Your task to perform on an android device: toggle airplane mode Image 0: 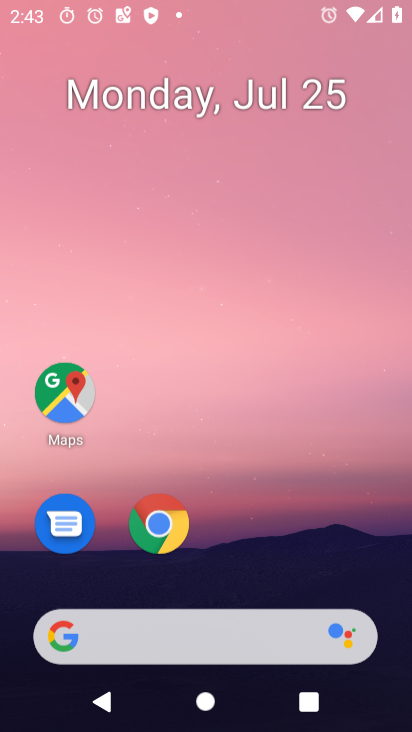
Step 0: press home button
Your task to perform on an android device: toggle airplane mode Image 1: 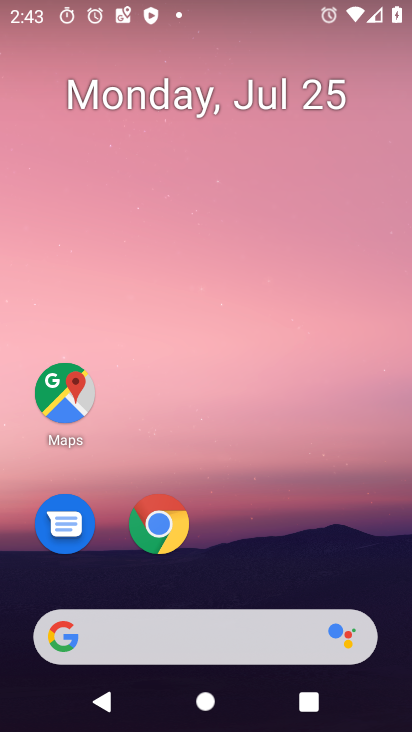
Step 1: drag from (206, 2) to (234, 511)
Your task to perform on an android device: toggle airplane mode Image 2: 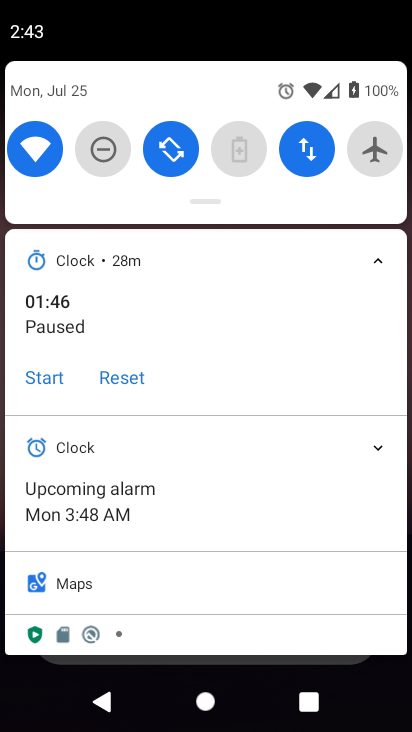
Step 2: click (364, 151)
Your task to perform on an android device: toggle airplane mode Image 3: 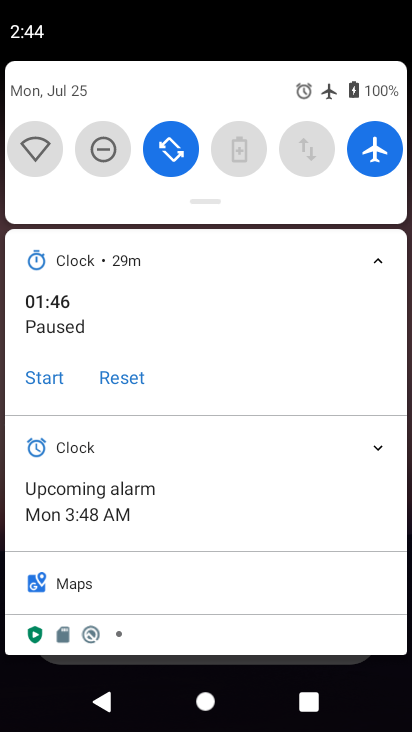
Step 3: task complete